Your task to perform on an android device: Go to calendar. Show me events next week Image 0: 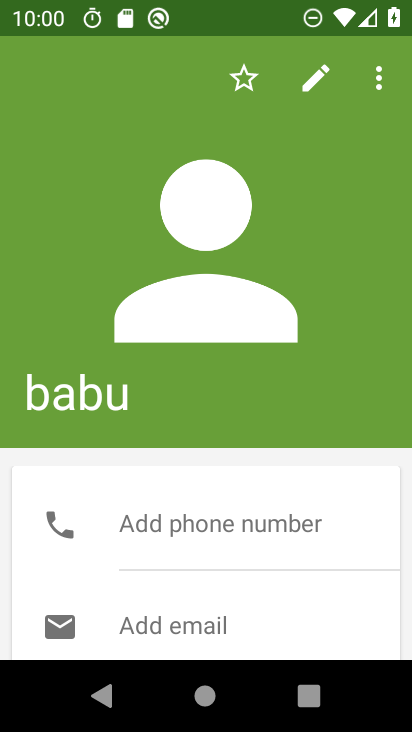
Step 0: press home button
Your task to perform on an android device: Go to calendar. Show me events next week Image 1: 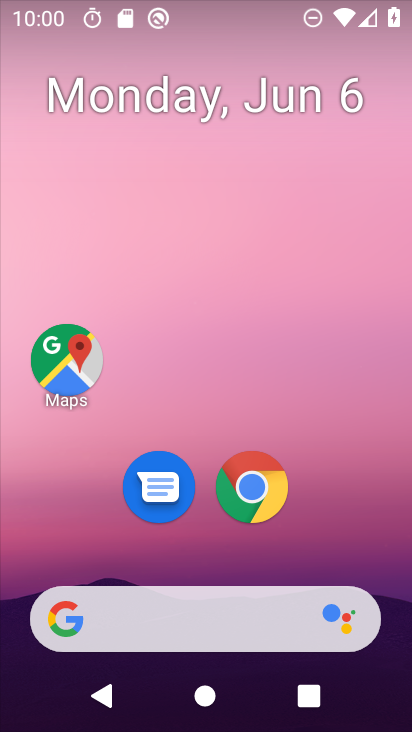
Step 1: drag from (390, 622) to (277, 52)
Your task to perform on an android device: Go to calendar. Show me events next week Image 2: 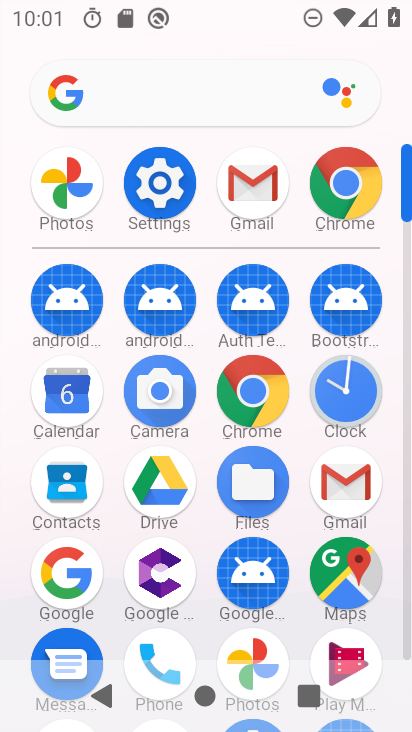
Step 2: click (67, 403)
Your task to perform on an android device: Go to calendar. Show me events next week Image 3: 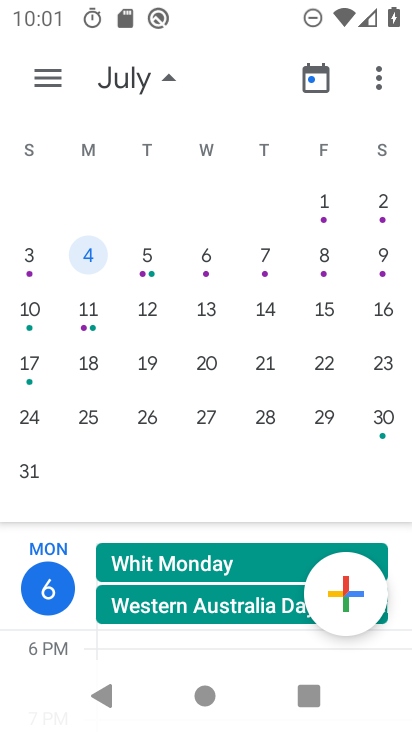
Step 3: task complete